Your task to perform on an android device: Go to Reddit.com Image 0: 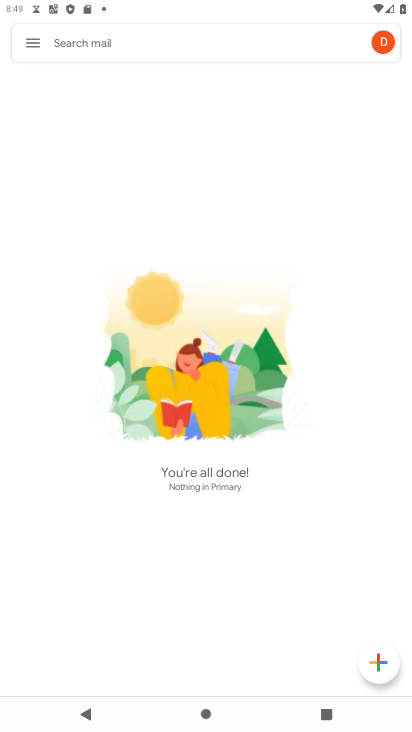
Step 0: press back button
Your task to perform on an android device: Go to Reddit.com Image 1: 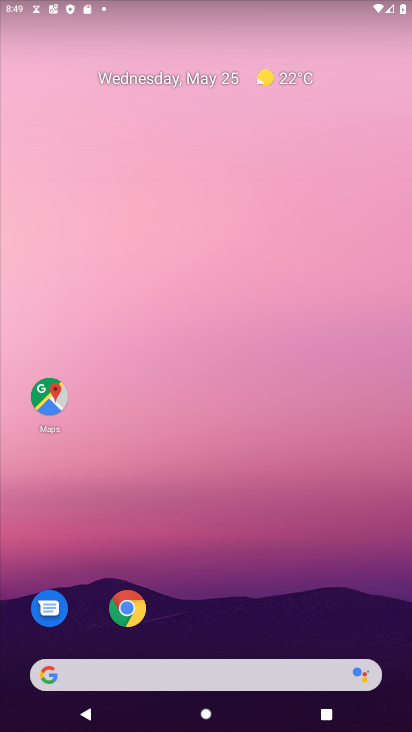
Step 1: click (126, 609)
Your task to perform on an android device: Go to Reddit.com Image 2: 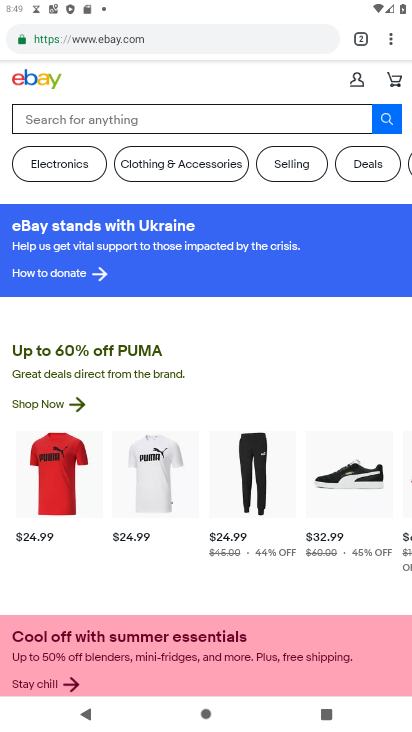
Step 2: click (209, 42)
Your task to perform on an android device: Go to Reddit.com Image 3: 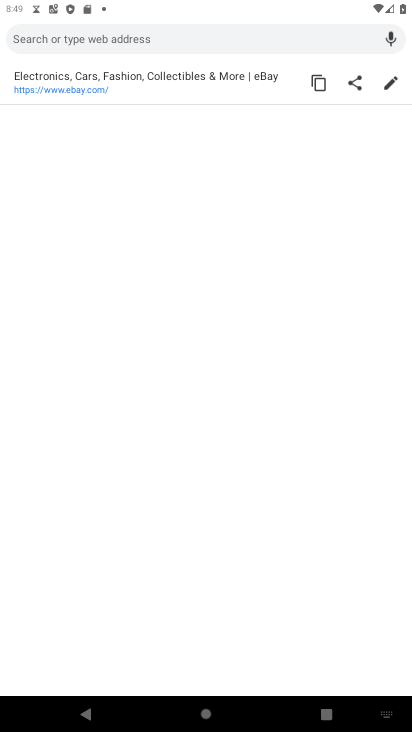
Step 3: type "Reddit.com"
Your task to perform on an android device: Go to Reddit.com Image 4: 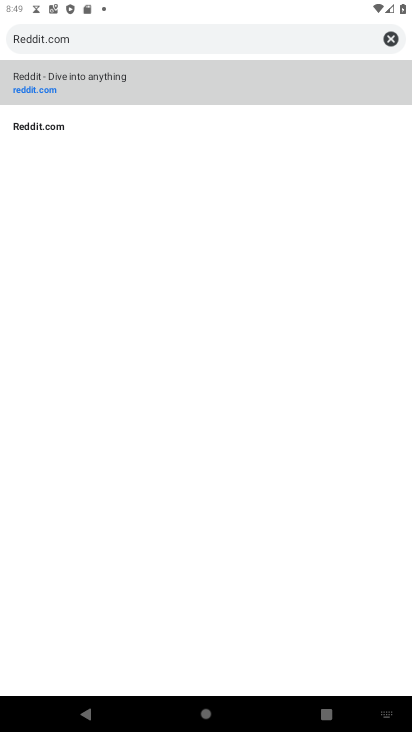
Step 4: click (38, 127)
Your task to perform on an android device: Go to Reddit.com Image 5: 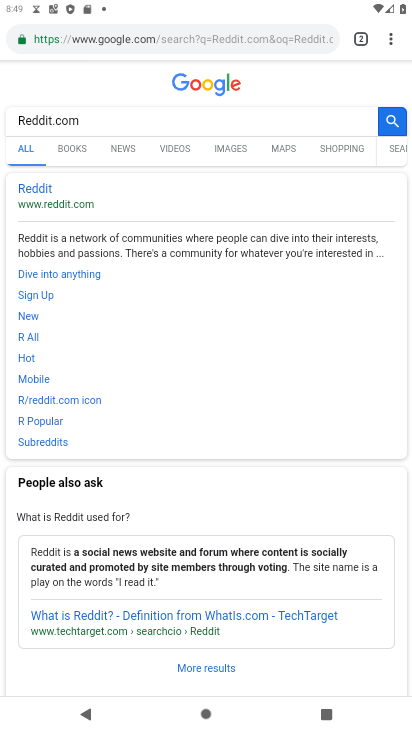
Step 5: click (50, 207)
Your task to perform on an android device: Go to Reddit.com Image 6: 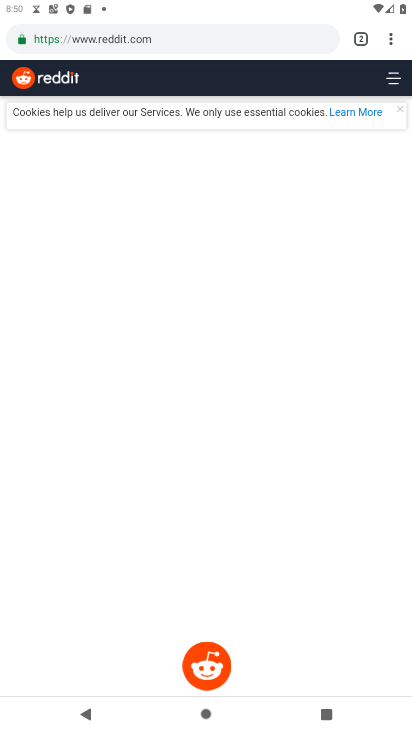
Step 6: task complete